Your task to perform on an android device: turn off airplane mode Image 0: 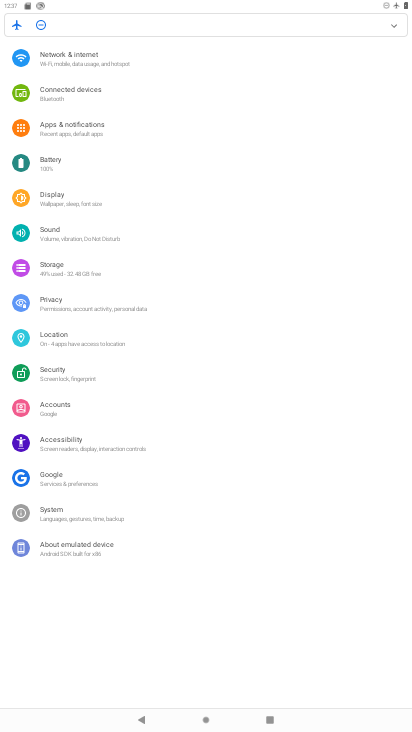
Step 0: drag from (115, 6) to (156, 694)
Your task to perform on an android device: turn off airplane mode Image 1: 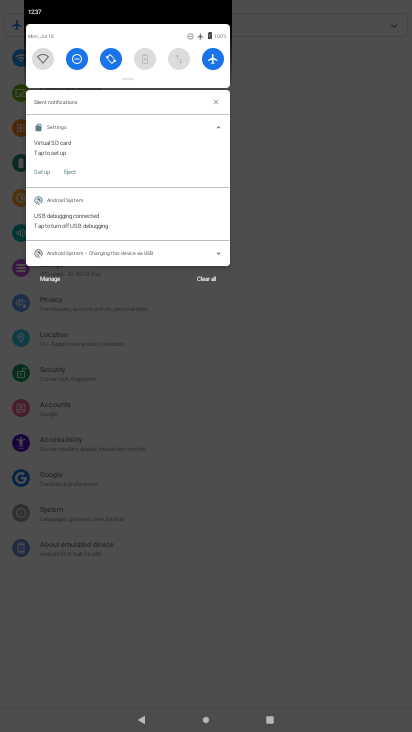
Step 1: click (211, 57)
Your task to perform on an android device: turn off airplane mode Image 2: 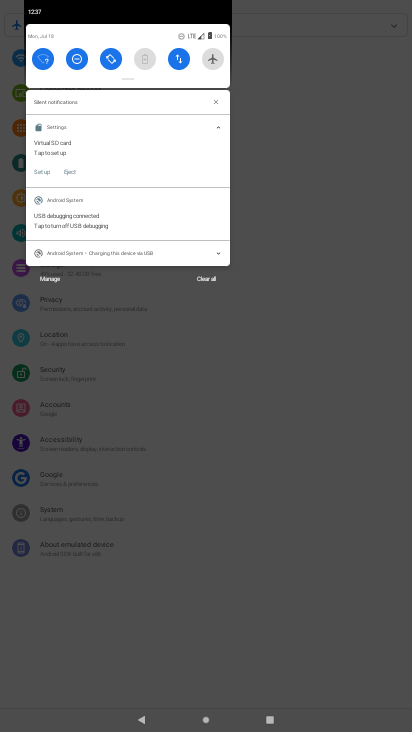
Step 2: task complete